Your task to perform on an android device: Search for Mexican restaurants on Maps Image 0: 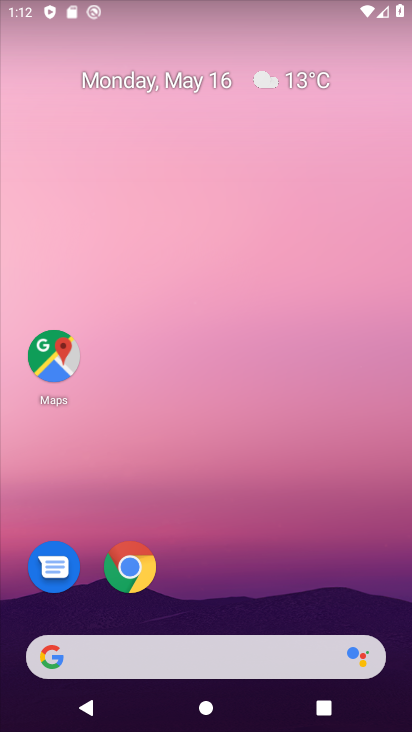
Step 0: click (44, 365)
Your task to perform on an android device: Search for Mexican restaurants on Maps Image 1: 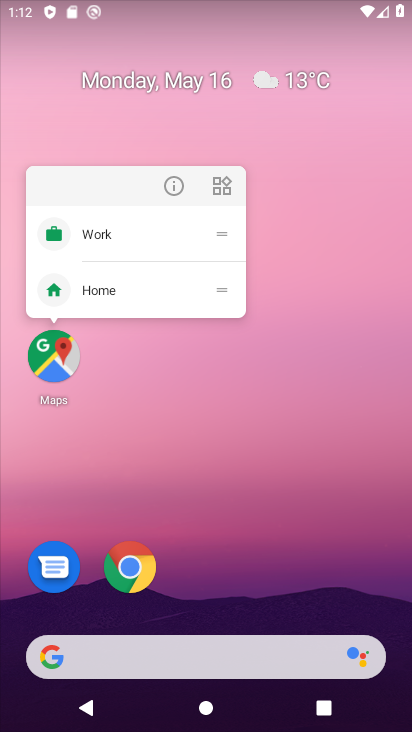
Step 1: click (54, 347)
Your task to perform on an android device: Search for Mexican restaurants on Maps Image 2: 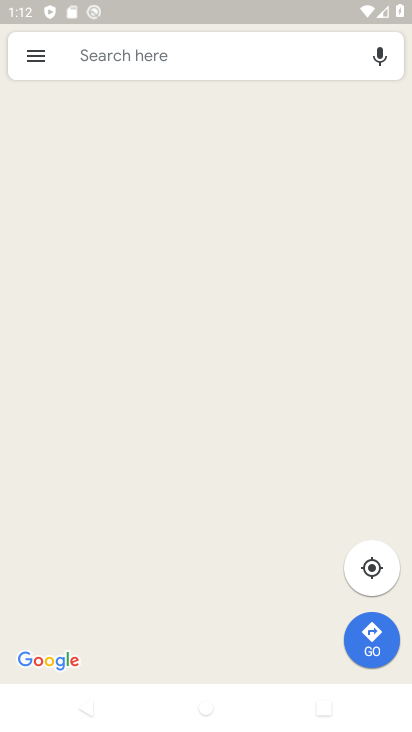
Step 2: click (160, 52)
Your task to perform on an android device: Search for Mexican restaurants on Maps Image 3: 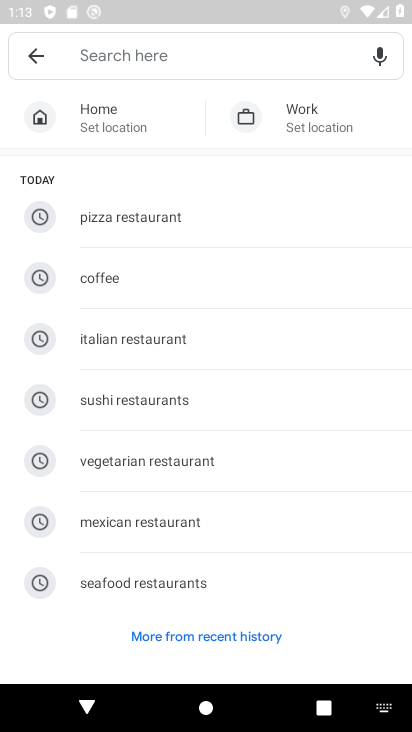
Step 3: type "Mexican restaurants"
Your task to perform on an android device: Search for Mexican restaurants on Maps Image 4: 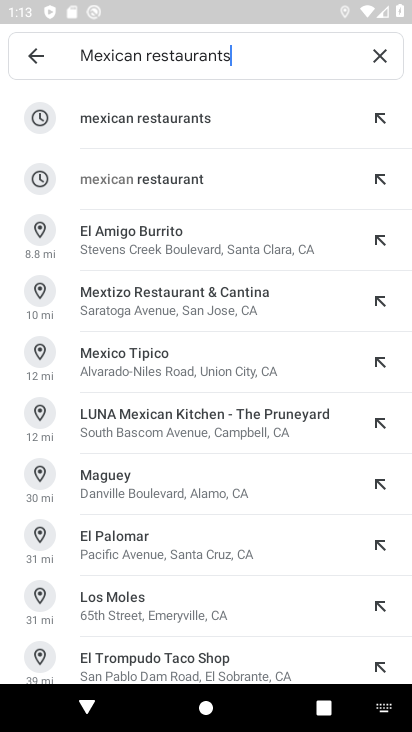
Step 4: click (203, 121)
Your task to perform on an android device: Search for Mexican restaurants on Maps Image 5: 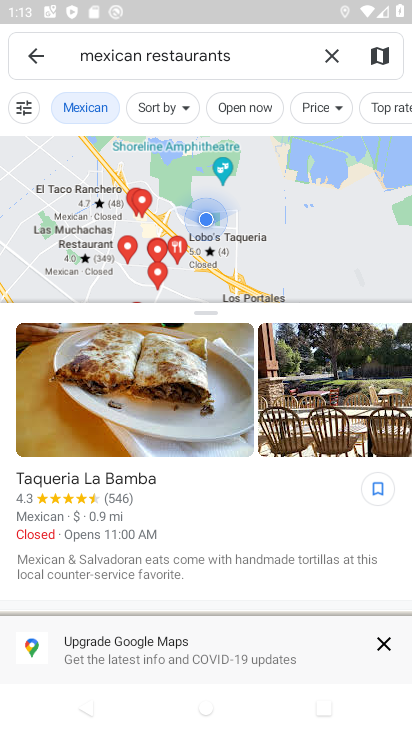
Step 5: click (380, 630)
Your task to perform on an android device: Search for Mexican restaurants on Maps Image 6: 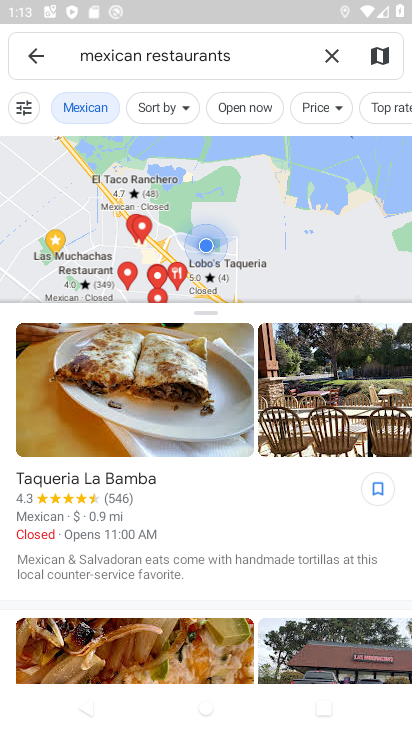
Step 6: task complete